Your task to perform on an android device: Play the last video I watched on Youtube Image 0: 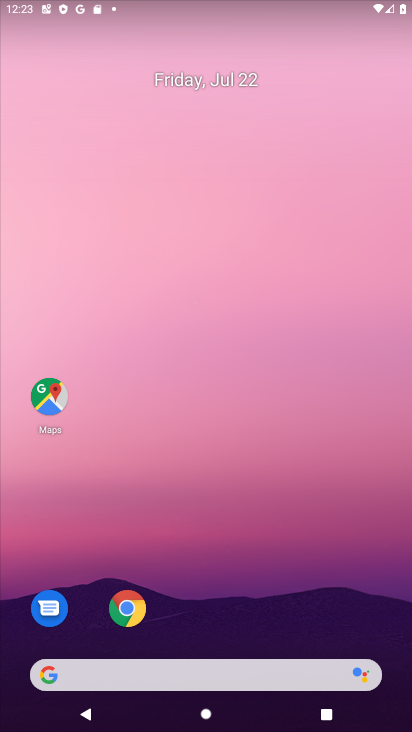
Step 0: drag from (204, 626) to (201, 30)
Your task to perform on an android device: Play the last video I watched on Youtube Image 1: 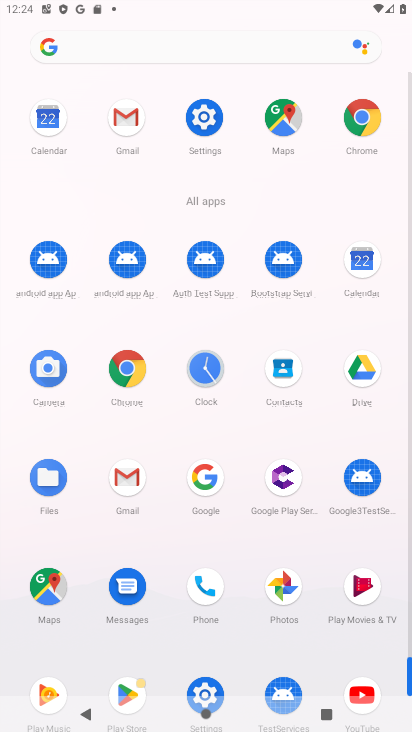
Step 1: click (364, 700)
Your task to perform on an android device: Play the last video I watched on Youtube Image 2: 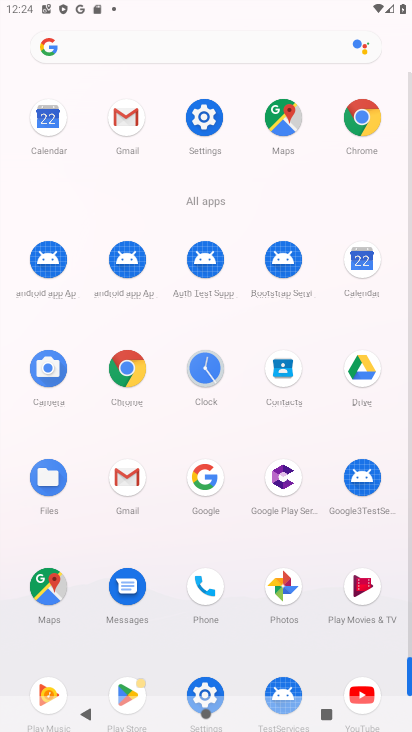
Step 2: click (364, 684)
Your task to perform on an android device: Play the last video I watched on Youtube Image 3: 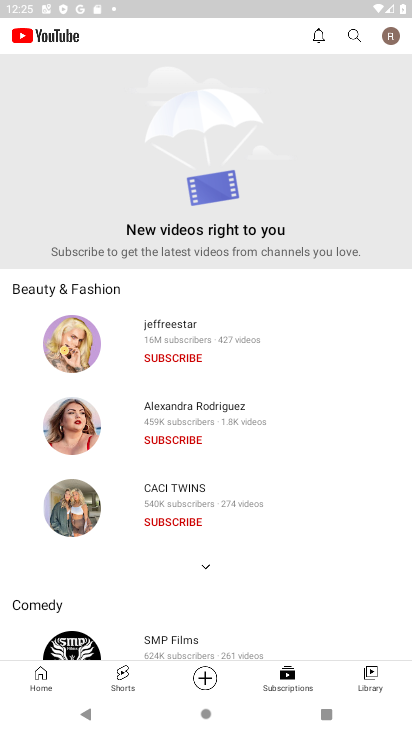
Step 3: click (373, 668)
Your task to perform on an android device: Play the last video I watched on Youtube Image 4: 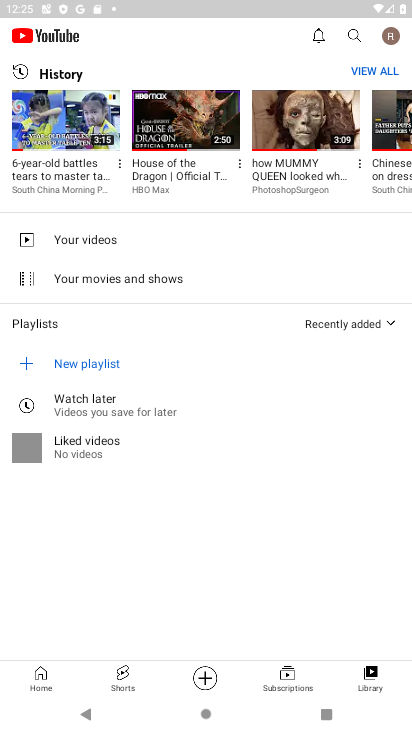
Step 4: click (71, 120)
Your task to perform on an android device: Play the last video I watched on Youtube Image 5: 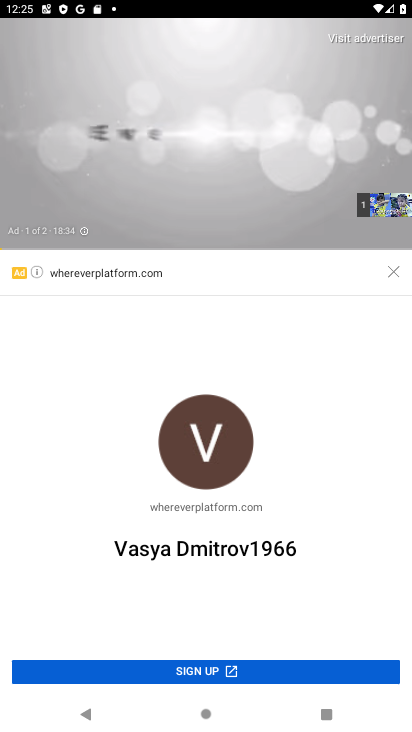
Step 5: task complete